Your task to perform on an android device: Search for the ikea sjalv lamp Image 0: 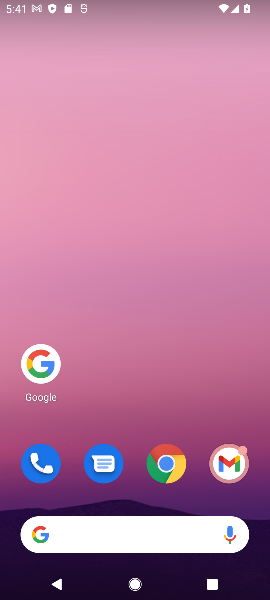
Step 0: click (35, 353)
Your task to perform on an android device: Search for the ikea sjalv lamp Image 1: 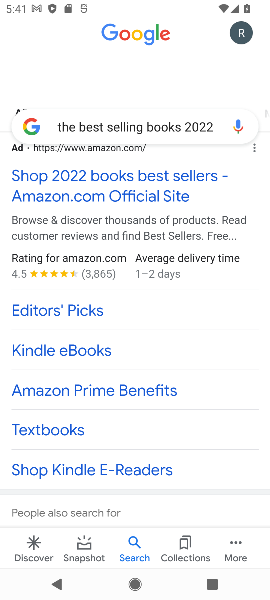
Step 1: click (158, 127)
Your task to perform on an android device: Search for the ikea sjalv lamp Image 2: 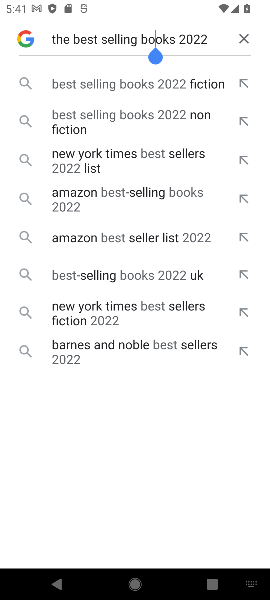
Step 2: click (244, 37)
Your task to perform on an android device: Search for the ikea sjalv lamp Image 3: 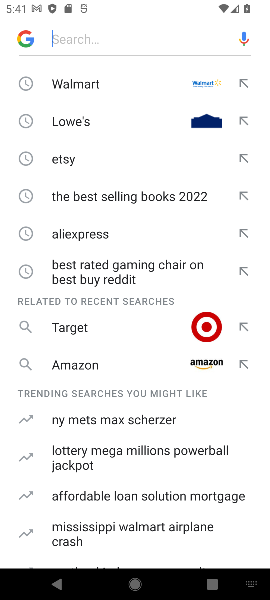
Step 3: click (125, 23)
Your task to perform on an android device: Search for the ikea sjalv lamp Image 4: 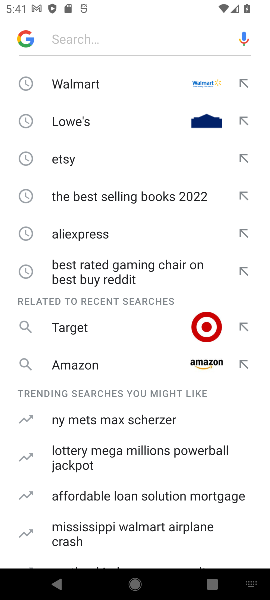
Step 4: type " ikea sjalv lamp "
Your task to perform on an android device: Search for the ikea sjalv lamp Image 5: 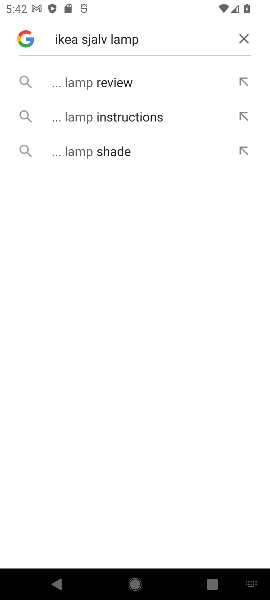
Step 5: click (105, 153)
Your task to perform on an android device: Search for the ikea sjalv lamp Image 6: 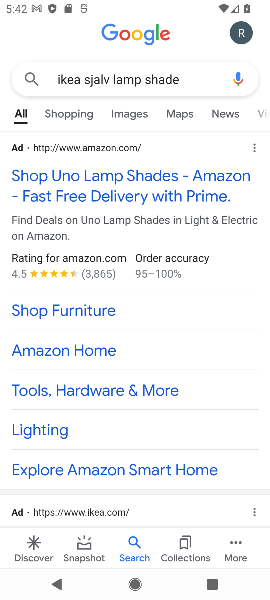
Step 6: task complete